Your task to perform on an android device: open chrome and create a bookmark for the current page Image 0: 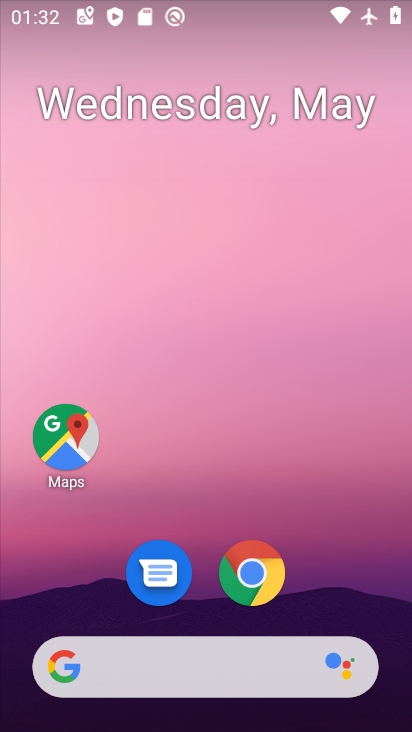
Step 0: drag from (300, 599) to (298, 377)
Your task to perform on an android device: open chrome and create a bookmark for the current page Image 1: 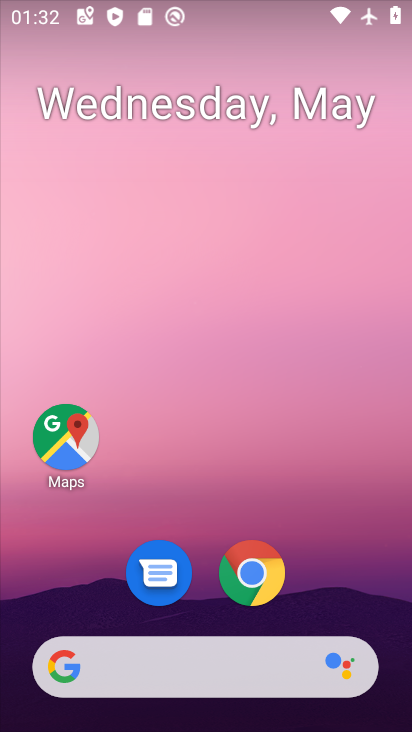
Step 1: click (253, 558)
Your task to perform on an android device: open chrome and create a bookmark for the current page Image 2: 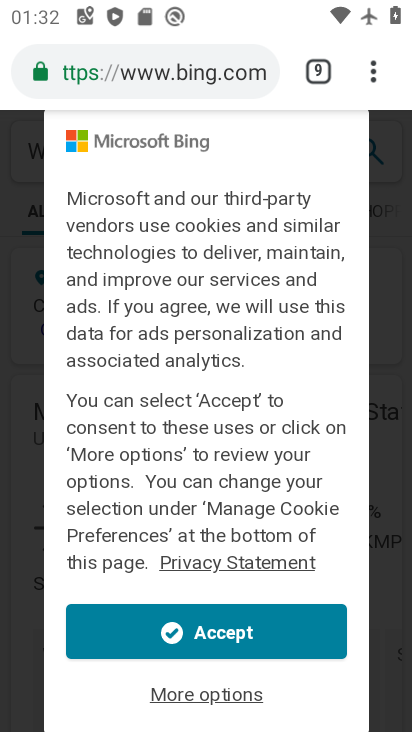
Step 2: click (349, 57)
Your task to perform on an android device: open chrome and create a bookmark for the current page Image 3: 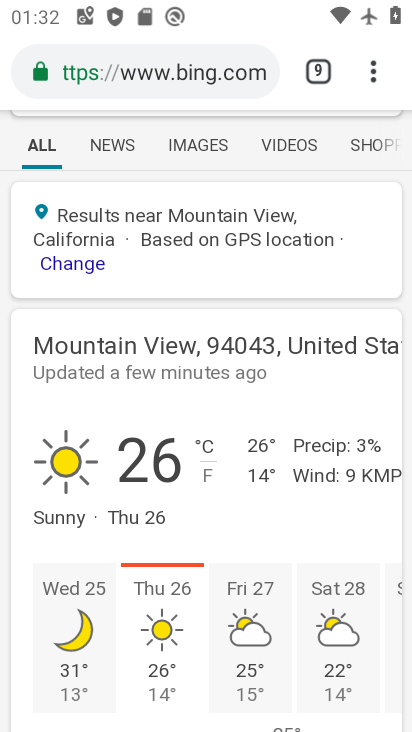
Step 3: click (369, 70)
Your task to perform on an android device: open chrome and create a bookmark for the current page Image 4: 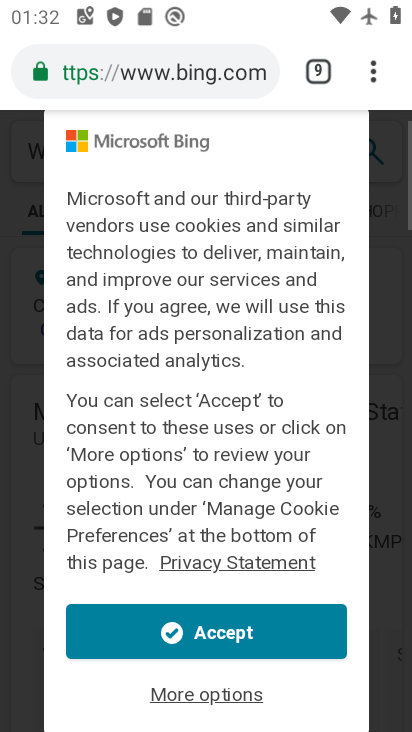
Step 4: click (351, 61)
Your task to perform on an android device: open chrome and create a bookmark for the current page Image 5: 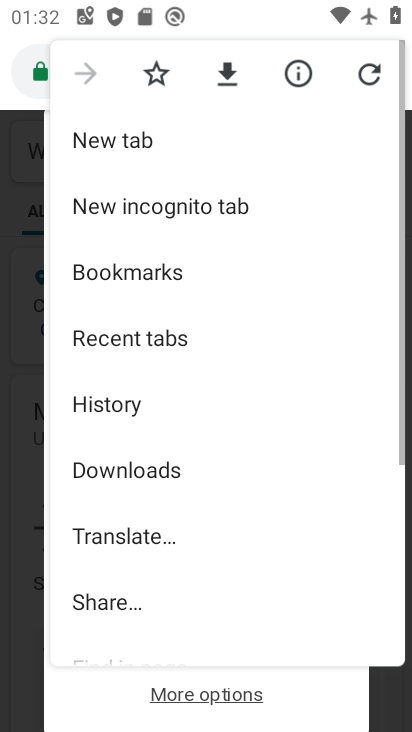
Step 5: click (168, 72)
Your task to perform on an android device: open chrome and create a bookmark for the current page Image 6: 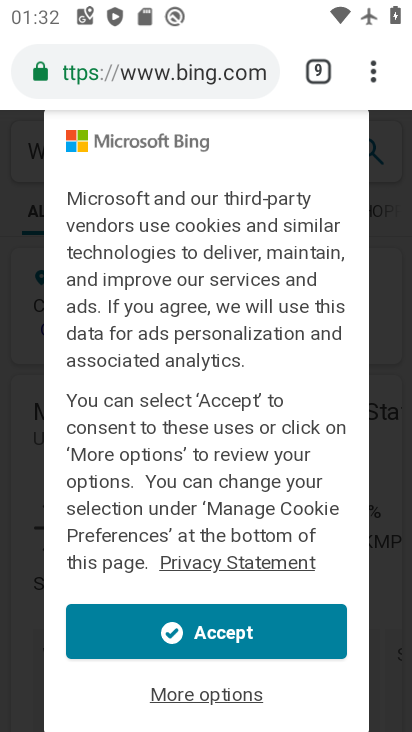
Step 6: task complete